Your task to perform on an android device: toggle airplane mode Image 0: 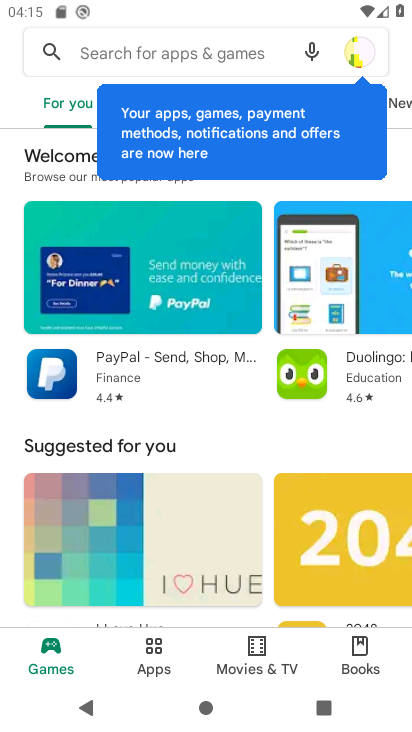
Step 0: press home button
Your task to perform on an android device: toggle airplane mode Image 1: 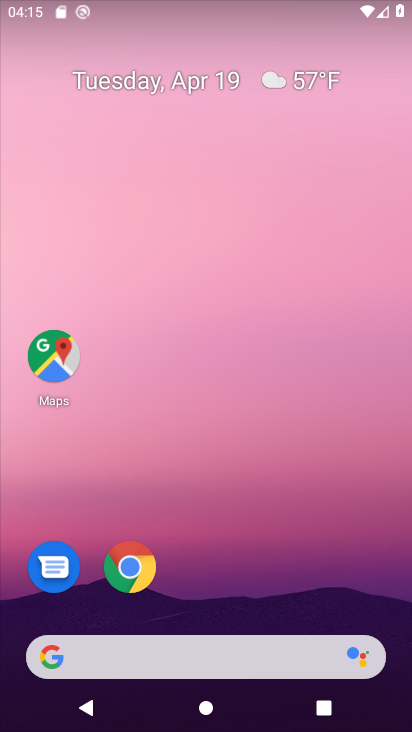
Step 1: drag from (351, 597) to (353, 172)
Your task to perform on an android device: toggle airplane mode Image 2: 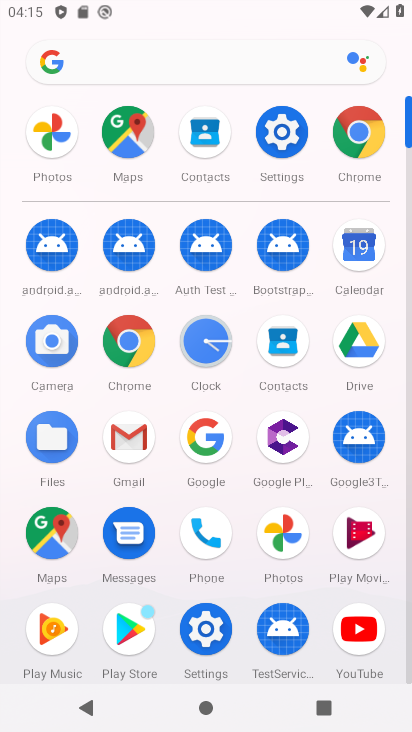
Step 2: click (283, 156)
Your task to perform on an android device: toggle airplane mode Image 3: 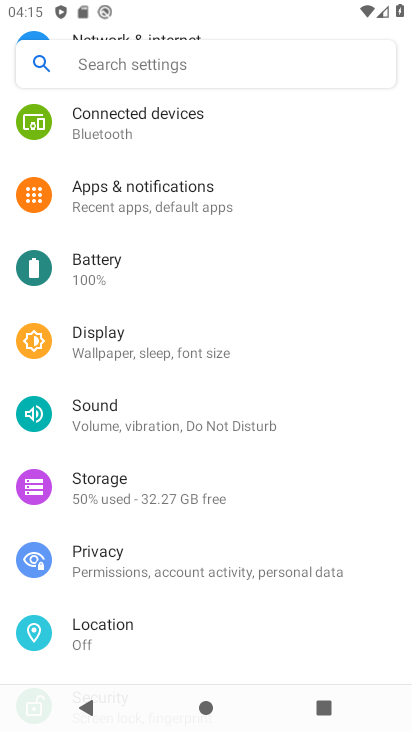
Step 3: drag from (343, 619) to (363, 472)
Your task to perform on an android device: toggle airplane mode Image 4: 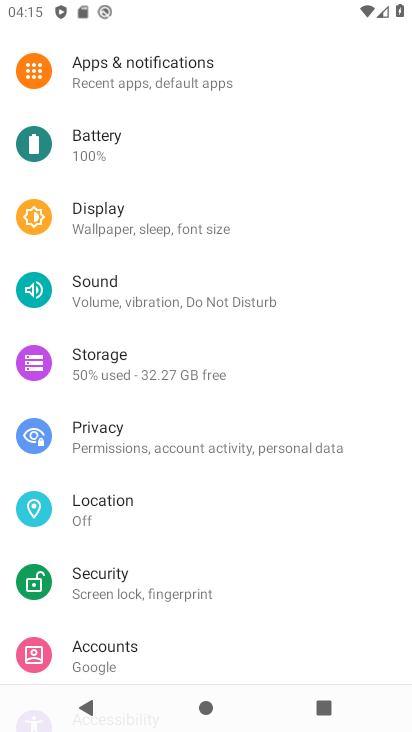
Step 4: drag from (356, 612) to (348, 471)
Your task to perform on an android device: toggle airplane mode Image 5: 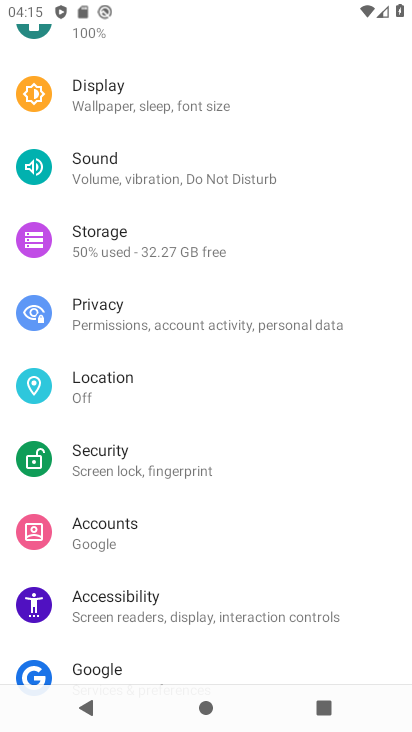
Step 5: drag from (361, 622) to (350, 454)
Your task to perform on an android device: toggle airplane mode Image 6: 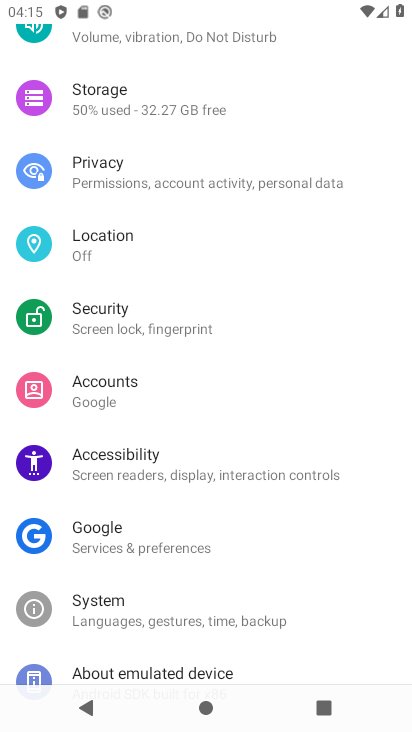
Step 6: drag from (357, 605) to (358, 419)
Your task to perform on an android device: toggle airplane mode Image 7: 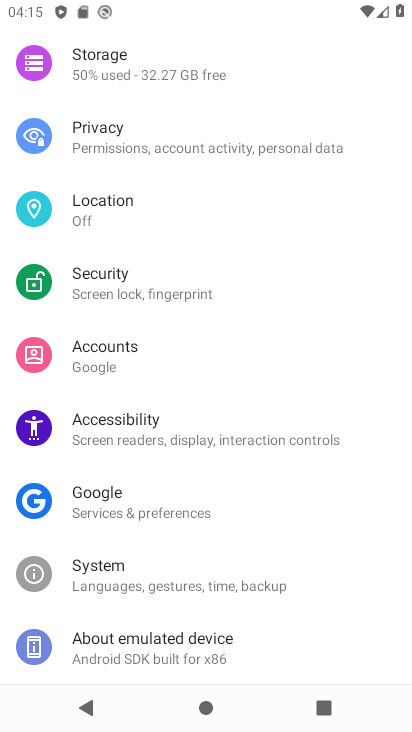
Step 7: drag from (364, 350) to (363, 528)
Your task to perform on an android device: toggle airplane mode Image 8: 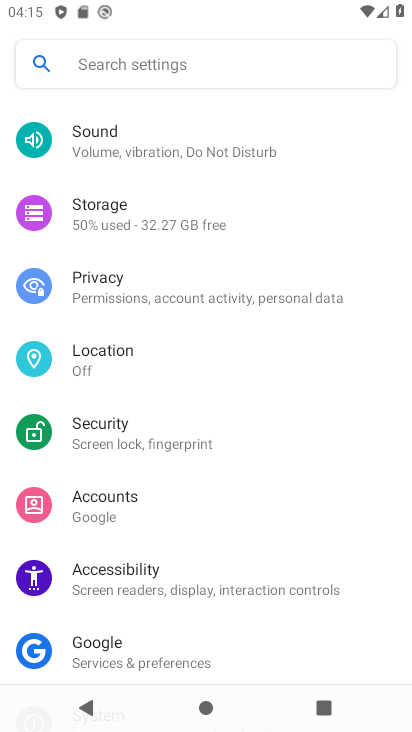
Step 8: drag from (364, 358) to (362, 524)
Your task to perform on an android device: toggle airplane mode Image 9: 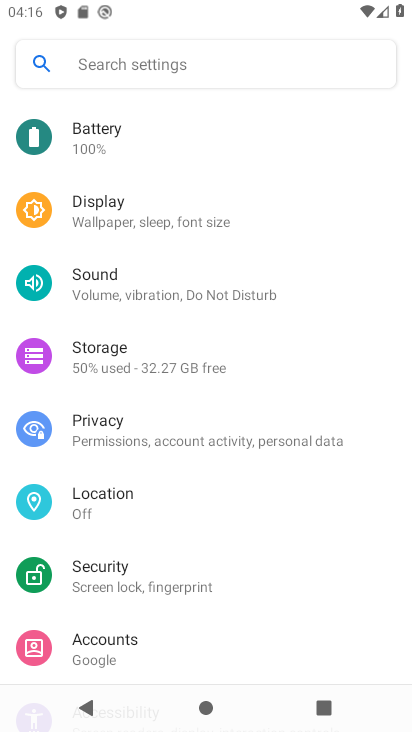
Step 9: drag from (368, 360) to (363, 500)
Your task to perform on an android device: toggle airplane mode Image 10: 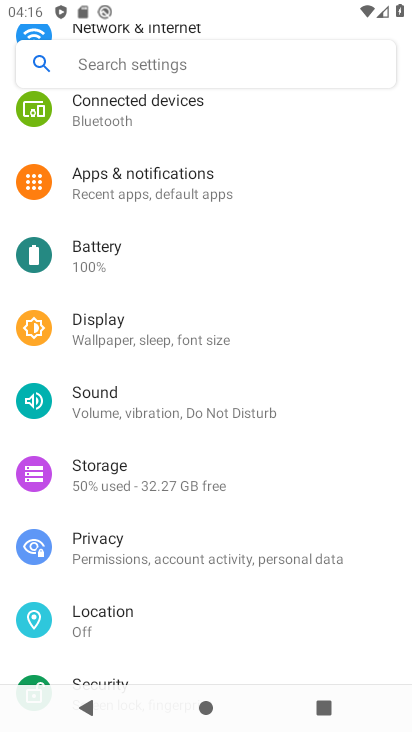
Step 10: drag from (361, 350) to (361, 491)
Your task to perform on an android device: toggle airplane mode Image 11: 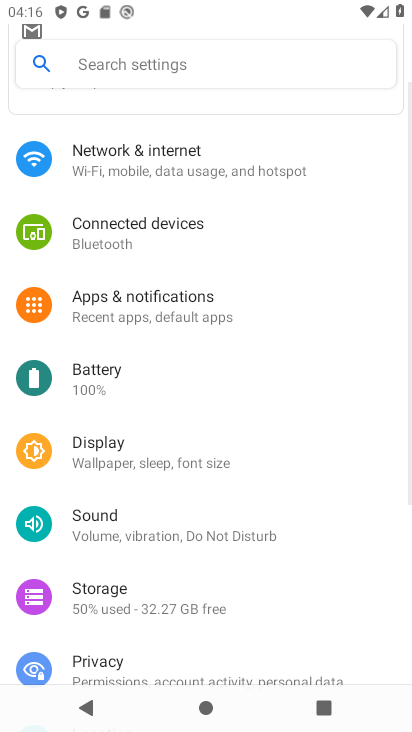
Step 11: drag from (352, 348) to (349, 528)
Your task to perform on an android device: toggle airplane mode Image 12: 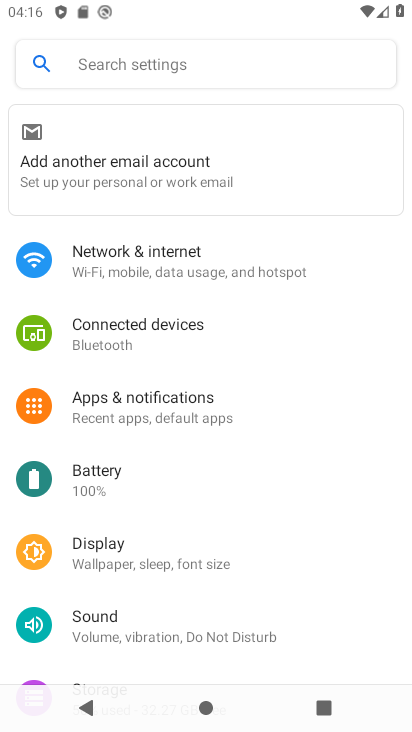
Step 12: drag from (355, 308) to (348, 469)
Your task to perform on an android device: toggle airplane mode Image 13: 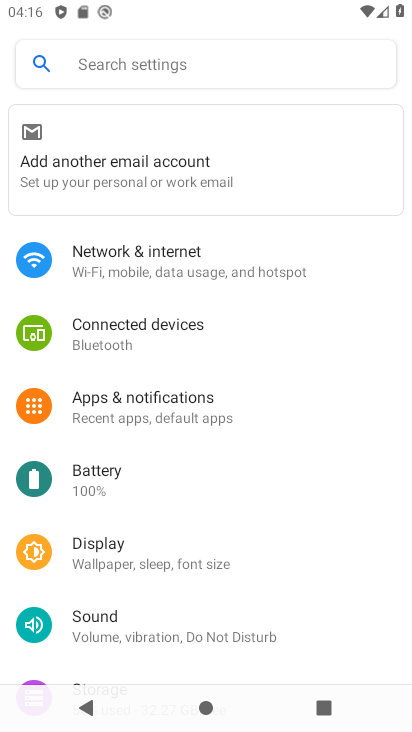
Step 13: click (265, 268)
Your task to perform on an android device: toggle airplane mode Image 14: 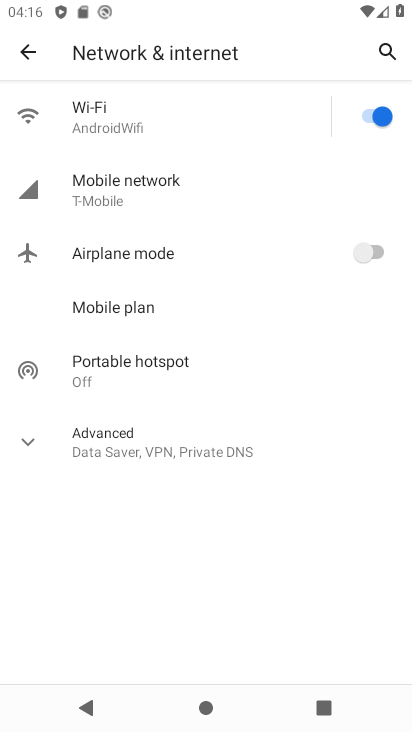
Step 14: click (359, 254)
Your task to perform on an android device: toggle airplane mode Image 15: 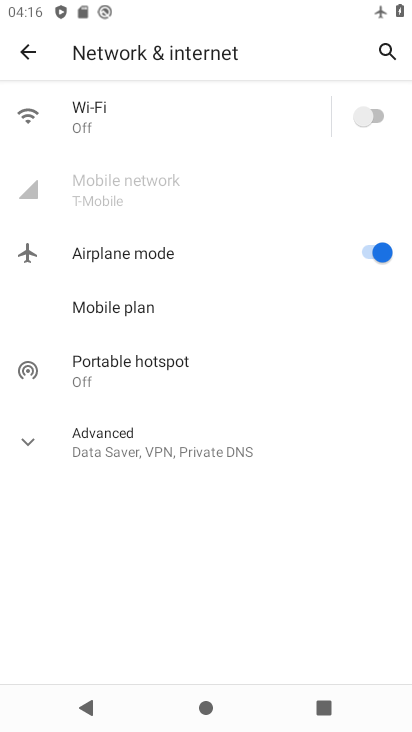
Step 15: task complete